Your task to perform on an android device: set the timer Image 0: 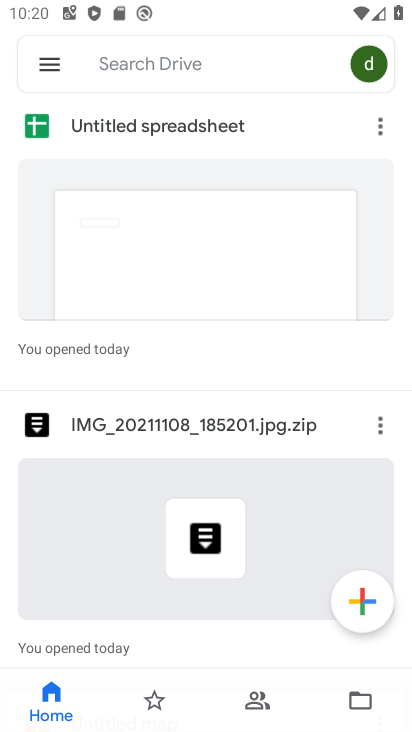
Step 0: press home button
Your task to perform on an android device: set the timer Image 1: 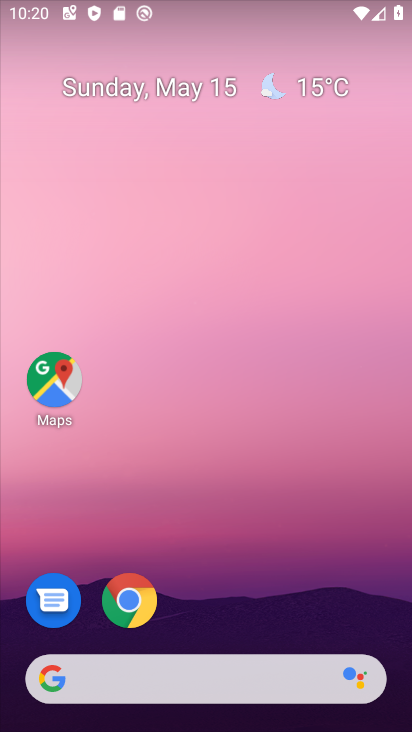
Step 1: drag from (368, 599) to (368, 131)
Your task to perform on an android device: set the timer Image 2: 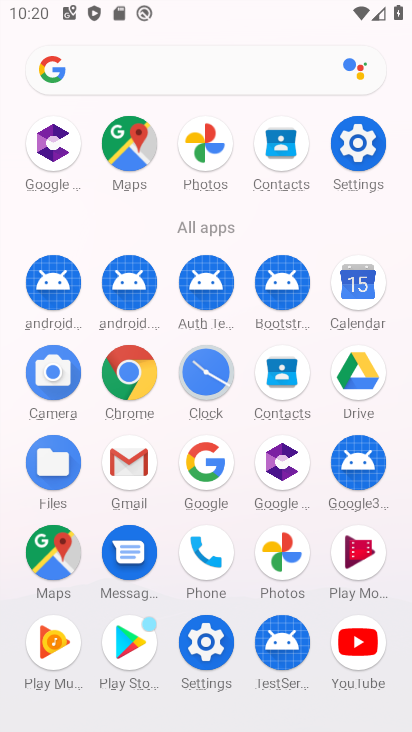
Step 2: click (198, 378)
Your task to perform on an android device: set the timer Image 3: 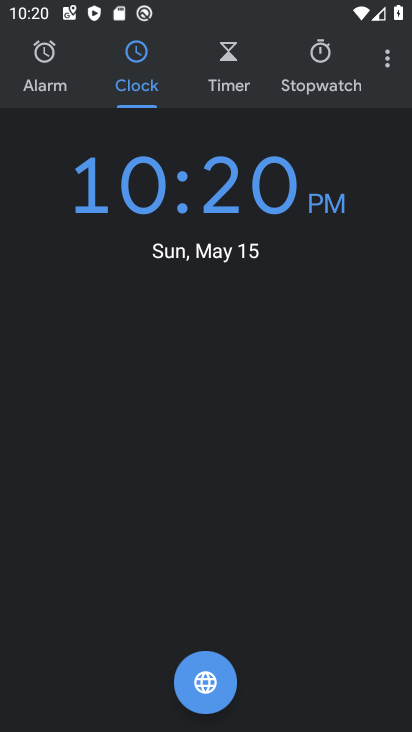
Step 3: click (43, 73)
Your task to perform on an android device: set the timer Image 4: 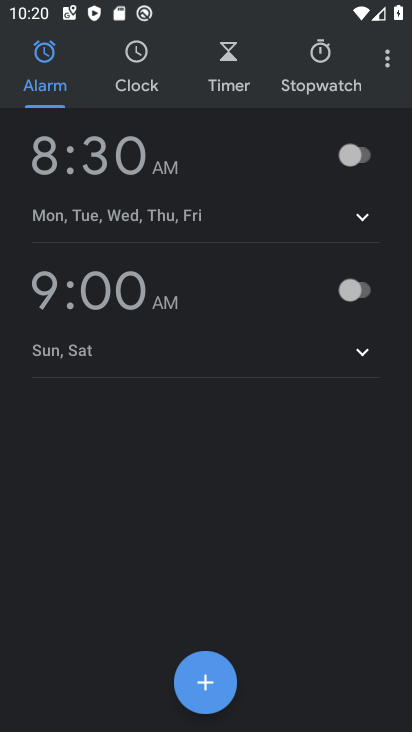
Step 4: click (215, 687)
Your task to perform on an android device: set the timer Image 5: 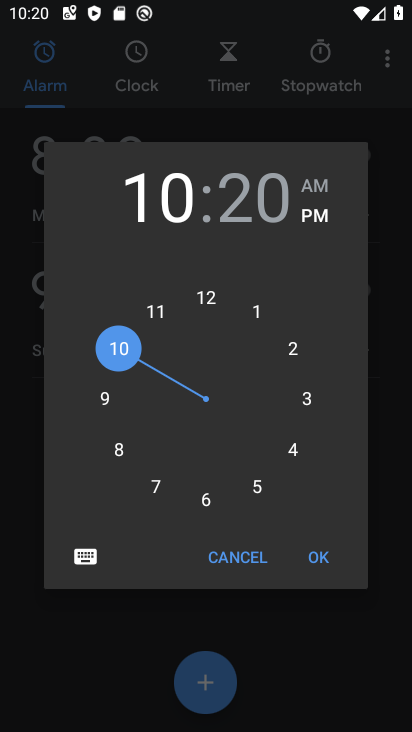
Step 5: click (294, 448)
Your task to perform on an android device: set the timer Image 6: 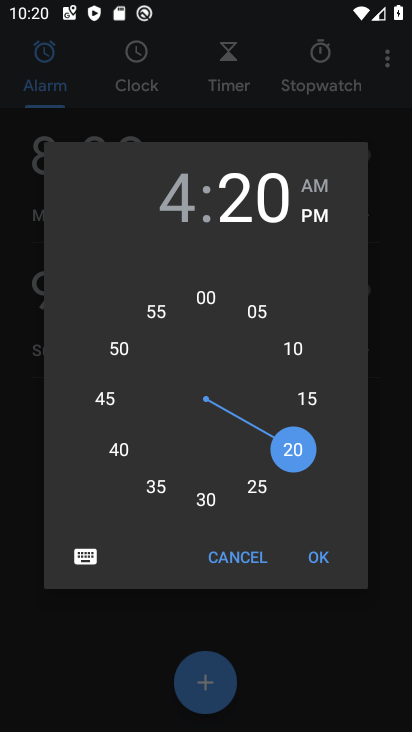
Step 6: click (323, 552)
Your task to perform on an android device: set the timer Image 7: 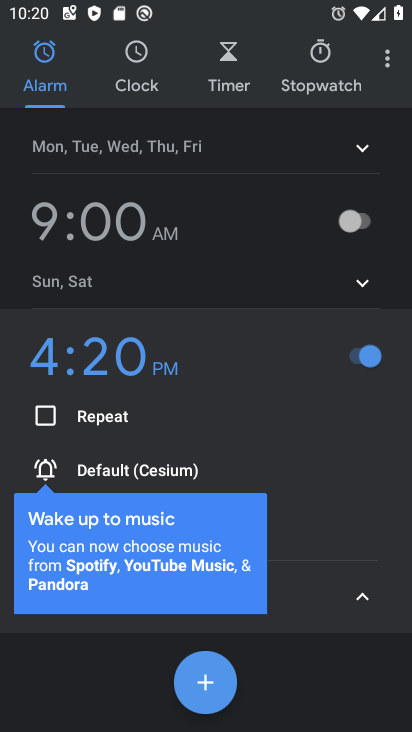
Step 7: task complete